Your task to perform on an android device: check google app version Image 0: 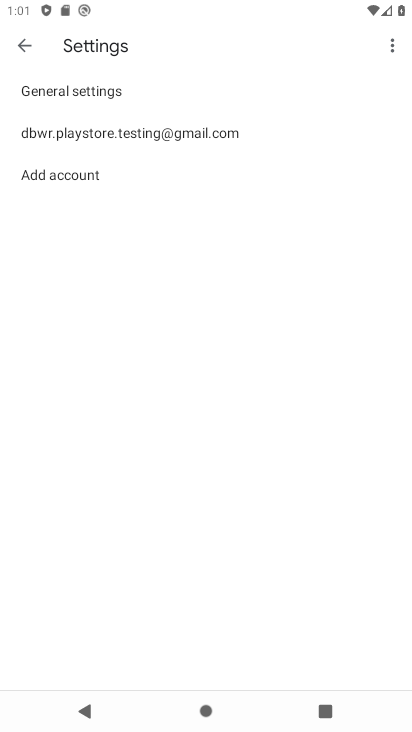
Step 0: press back button
Your task to perform on an android device: check google app version Image 1: 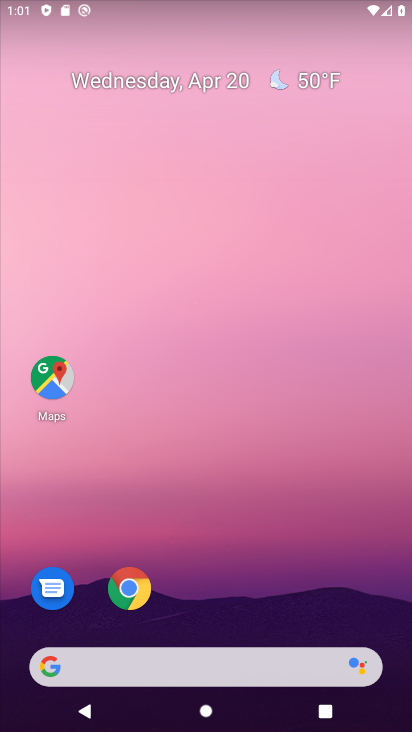
Step 1: drag from (181, 644) to (271, 358)
Your task to perform on an android device: check google app version Image 2: 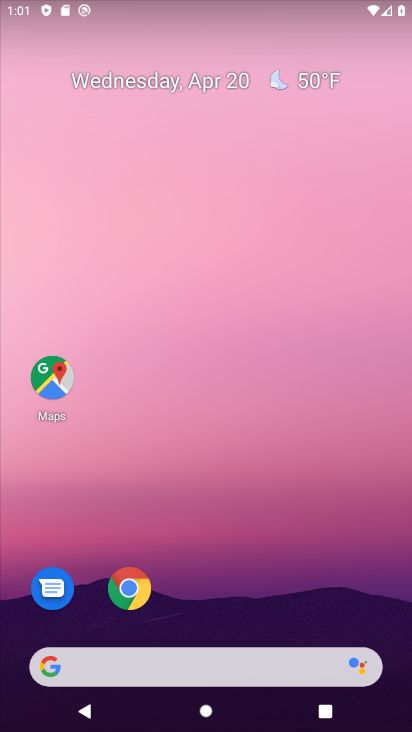
Step 2: drag from (180, 639) to (219, 170)
Your task to perform on an android device: check google app version Image 3: 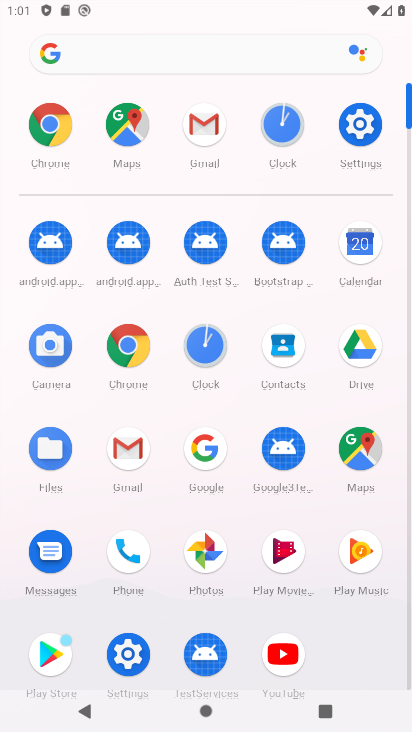
Step 3: click (199, 453)
Your task to perform on an android device: check google app version Image 4: 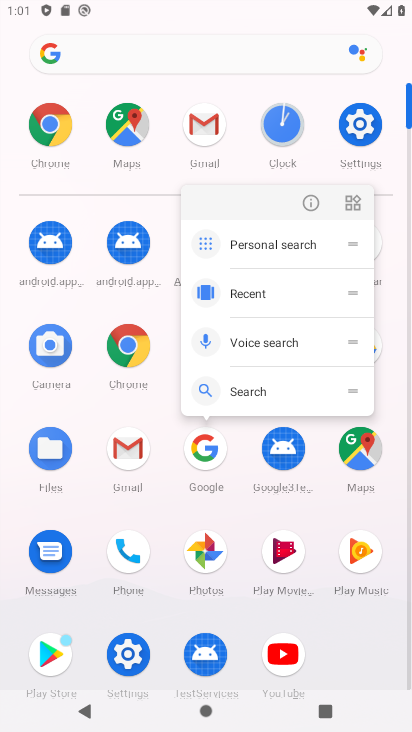
Step 4: click (310, 203)
Your task to perform on an android device: check google app version Image 5: 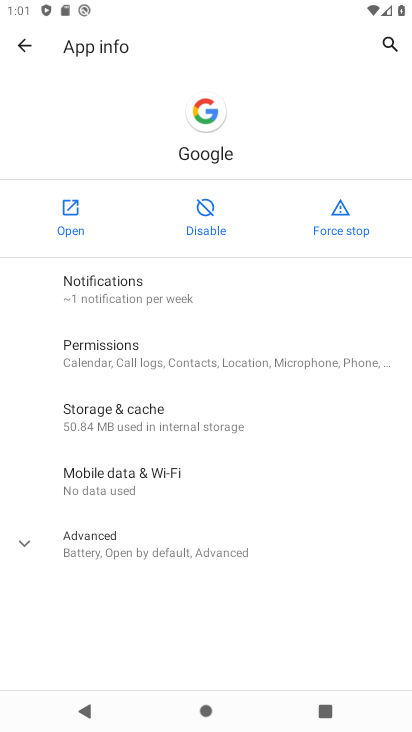
Step 5: click (141, 548)
Your task to perform on an android device: check google app version Image 6: 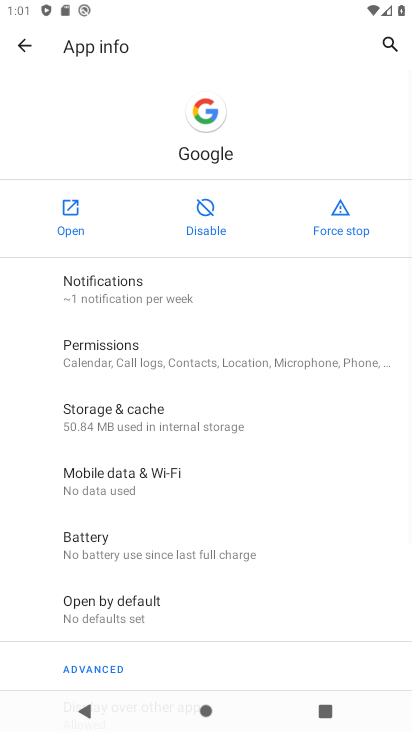
Step 6: task complete